Your task to perform on an android device: show emergency info Image 0: 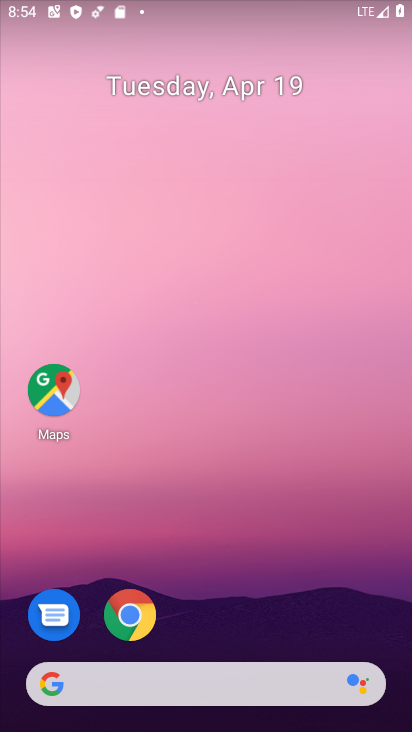
Step 0: drag from (310, 607) to (351, 66)
Your task to perform on an android device: show emergency info Image 1: 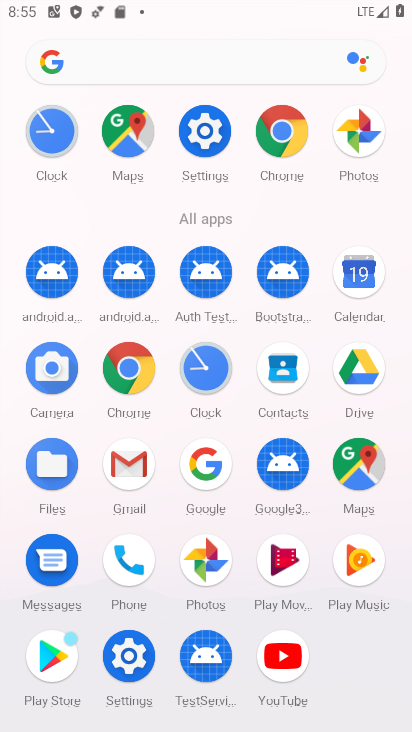
Step 1: click (217, 117)
Your task to perform on an android device: show emergency info Image 2: 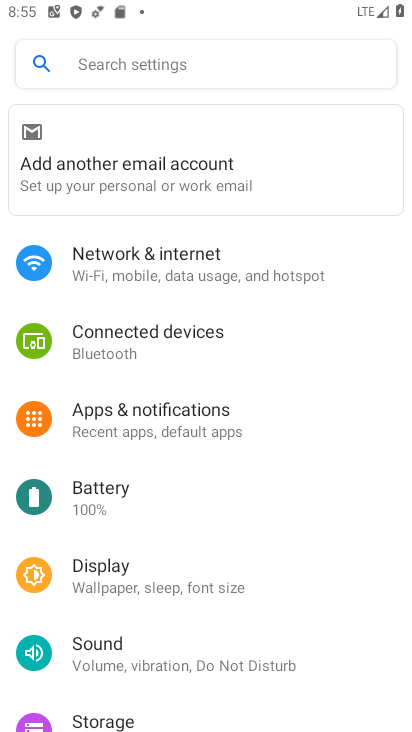
Step 2: drag from (190, 704) to (210, 133)
Your task to perform on an android device: show emergency info Image 3: 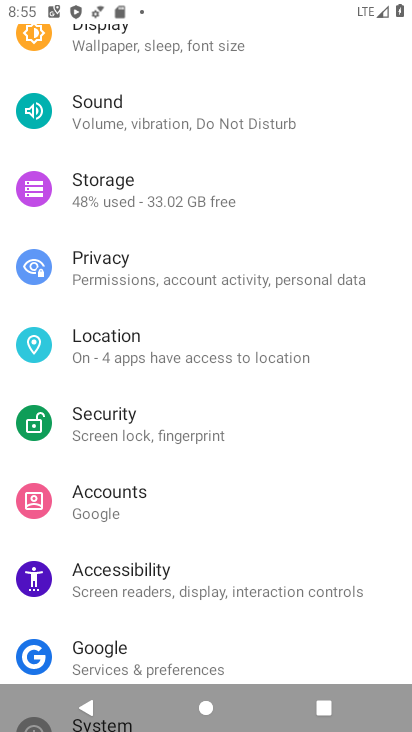
Step 3: drag from (212, 614) to (222, 68)
Your task to perform on an android device: show emergency info Image 4: 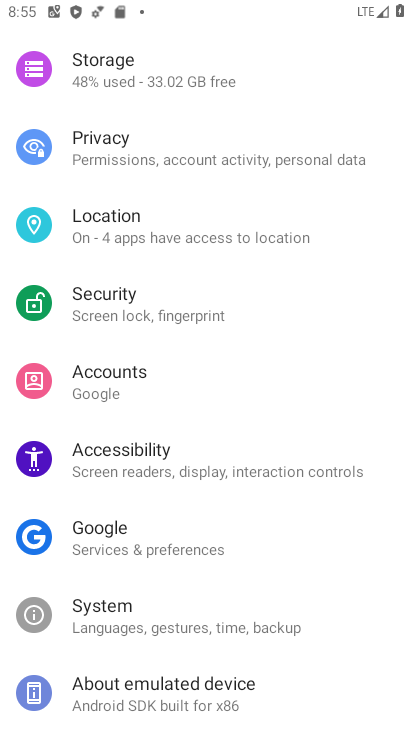
Step 4: drag from (123, 665) to (209, 63)
Your task to perform on an android device: show emergency info Image 5: 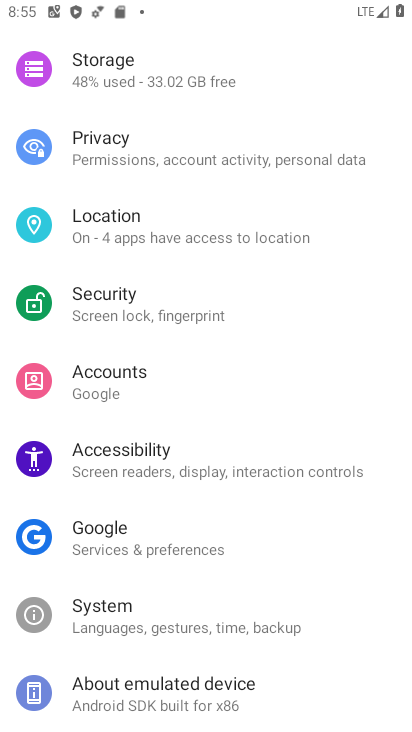
Step 5: click (259, 677)
Your task to perform on an android device: show emergency info Image 6: 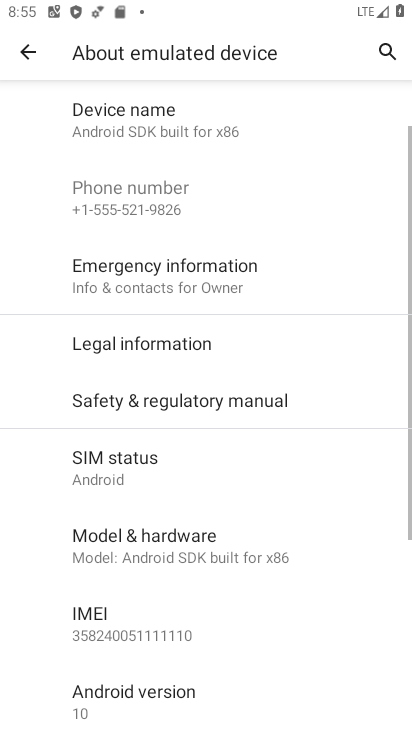
Step 6: drag from (172, 597) to (255, 216)
Your task to perform on an android device: show emergency info Image 7: 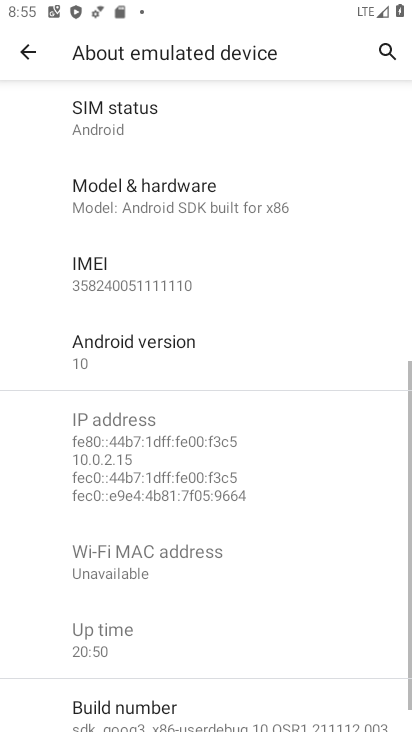
Step 7: drag from (296, 104) to (314, 638)
Your task to perform on an android device: show emergency info Image 8: 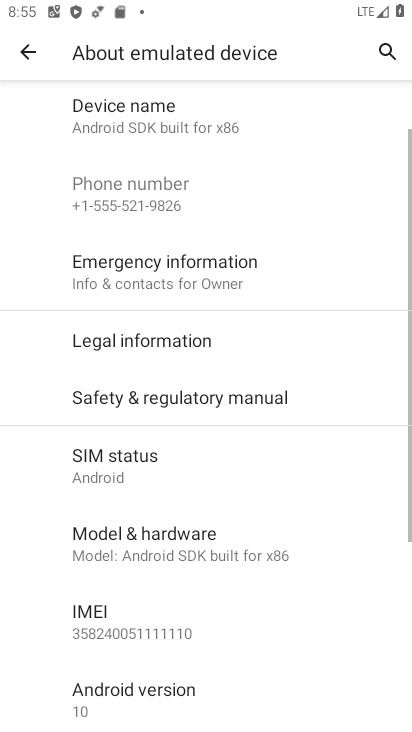
Step 8: click (258, 290)
Your task to perform on an android device: show emergency info Image 9: 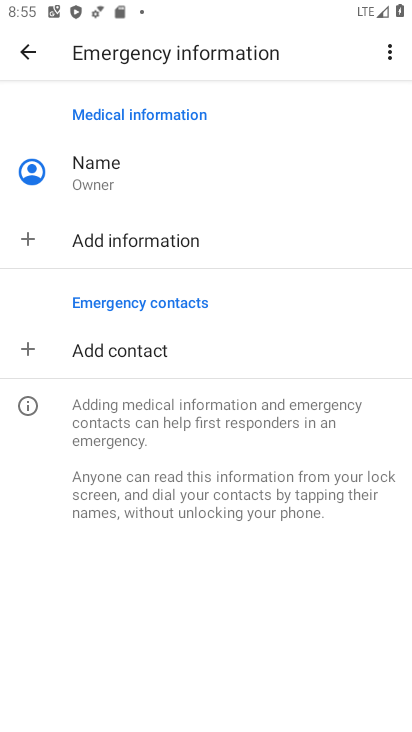
Step 9: task complete